Your task to perform on an android device: change alarm snooze length Image 0: 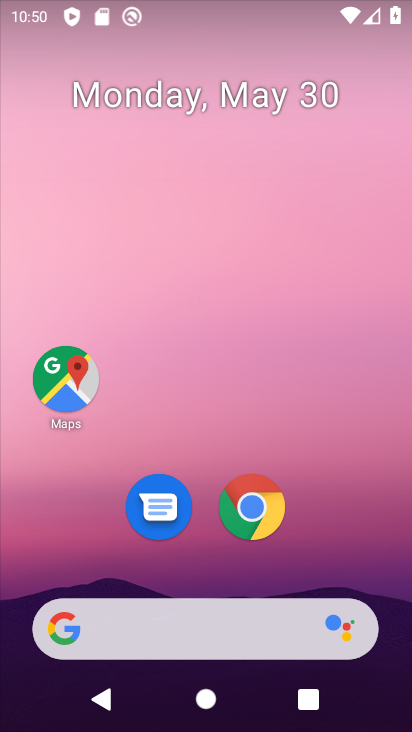
Step 0: drag from (181, 362) to (156, 20)
Your task to perform on an android device: change alarm snooze length Image 1: 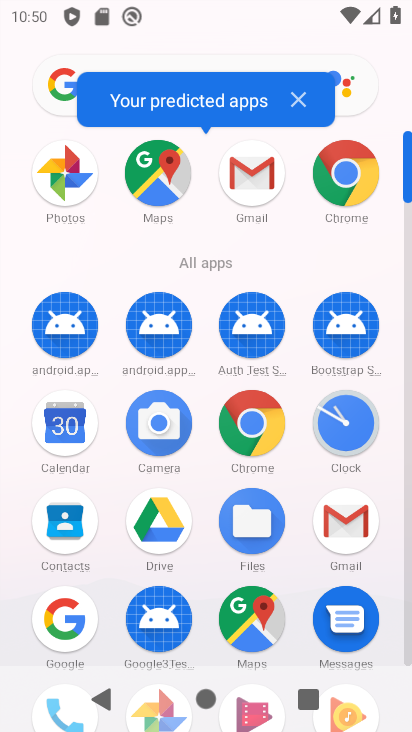
Step 1: click (343, 420)
Your task to perform on an android device: change alarm snooze length Image 2: 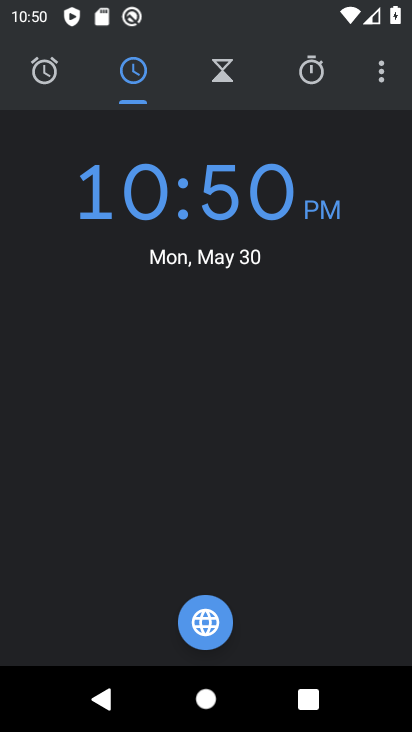
Step 2: click (379, 70)
Your task to perform on an android device: change alarm snooze length Image 3: 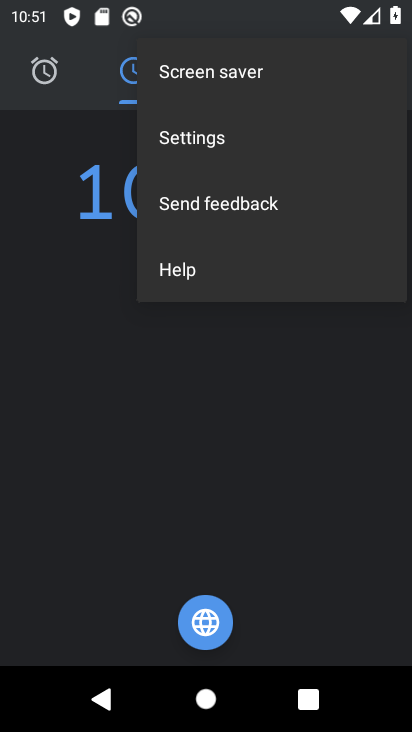
Step 3: click (176, 136)
Your task to perform on an android device: change alarm snooze length Image 4: 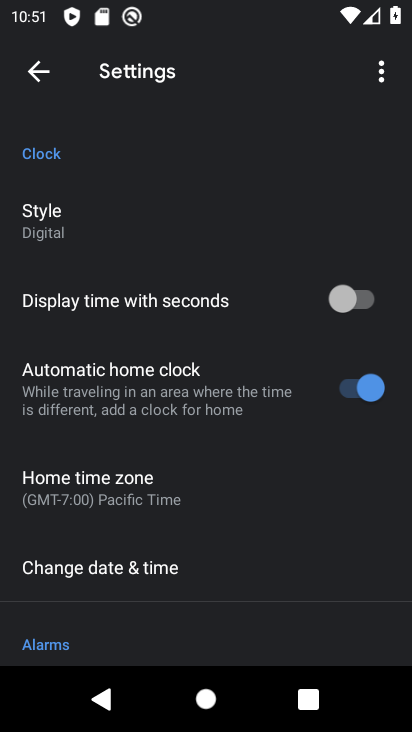
Step 4: drag from (226, 572) to (203, 228)
Your task to perform on an android device: change alarm snooze length Image 5: 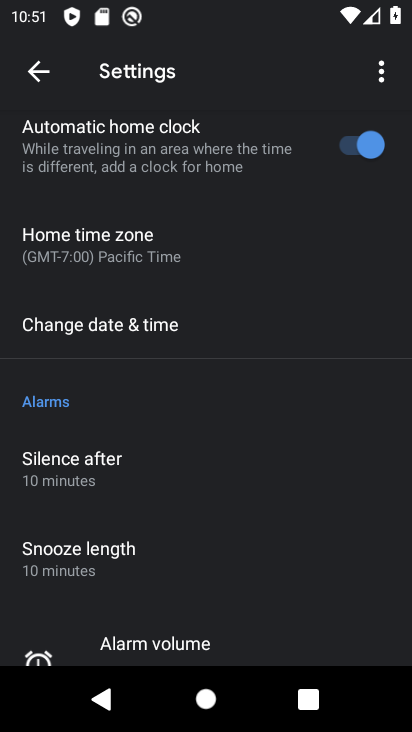
Step 5: click (91, 574)
Your task to perform on an android device: change alarm snooze length Image 6: 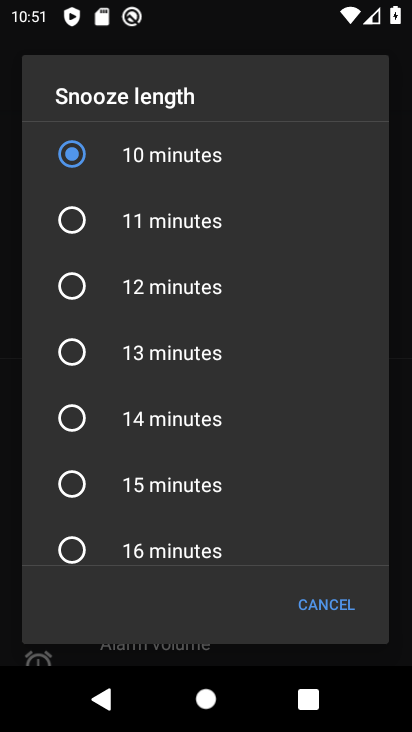
Step 6: click (149, 287)
Your task to perform on an android device: change alarm snooze length Image 7: 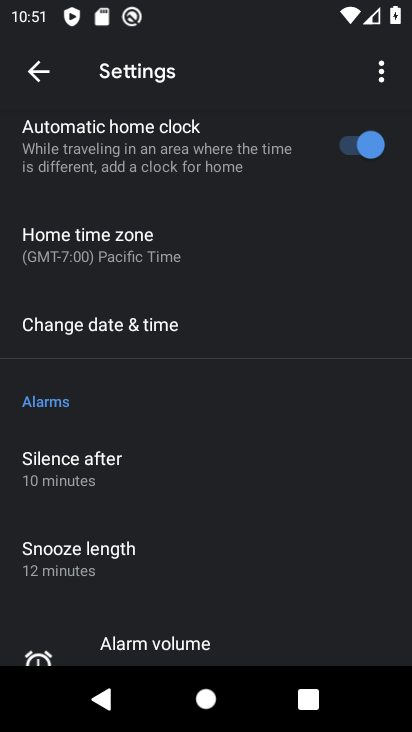
Step 7: task complete